Your task to perform on an android device: Go to Amazon Image 0: 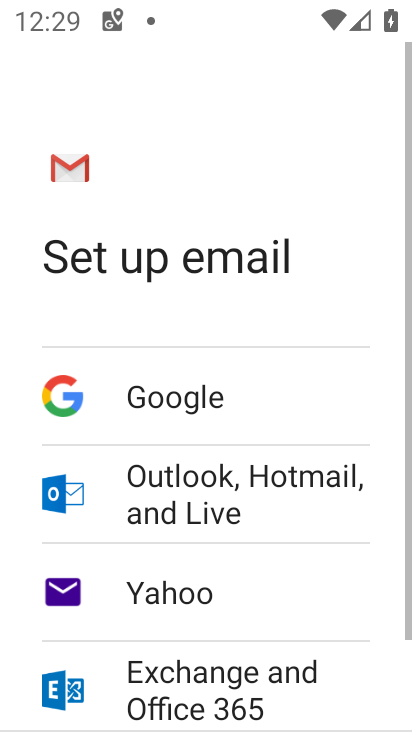
Step 0: press back button
Your task to perform on an android device: Go to Amazon Image 1: 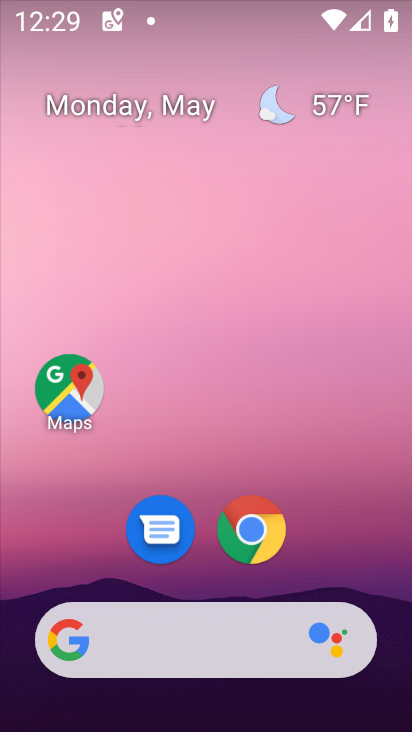
Step 1: click (254, 526)
Your task to perform on an android device: Go to Amazon Image 2: 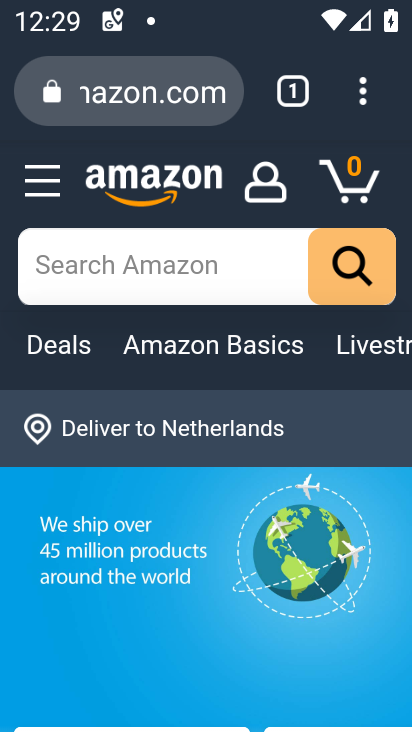
Step 2: task complete